Your task to perform on an android device: turn on translation in the chrome app Image 0: 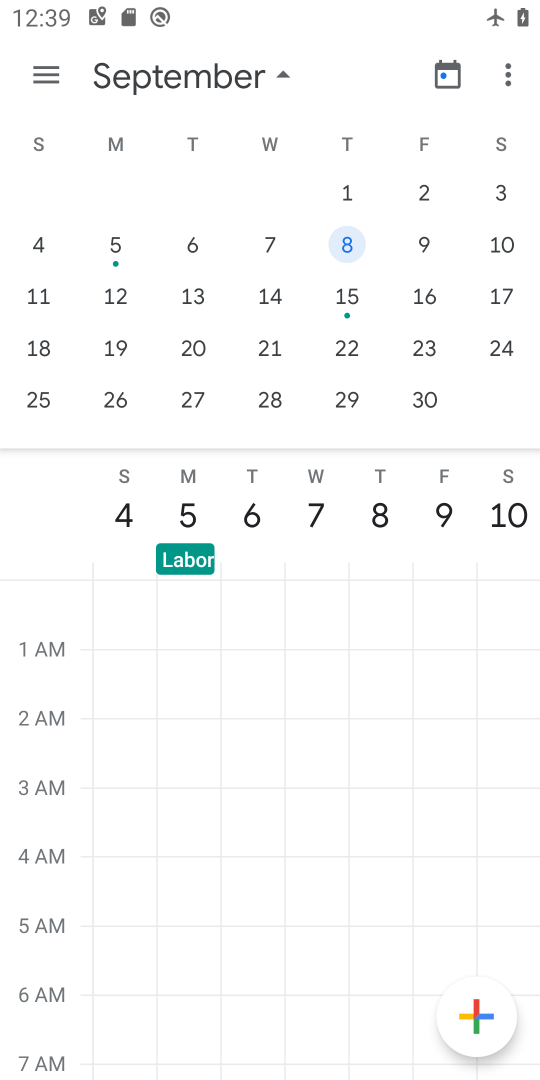
Step 0: press home button
Your task to perform on an android device: turn on translation in the chrome app Image 1: 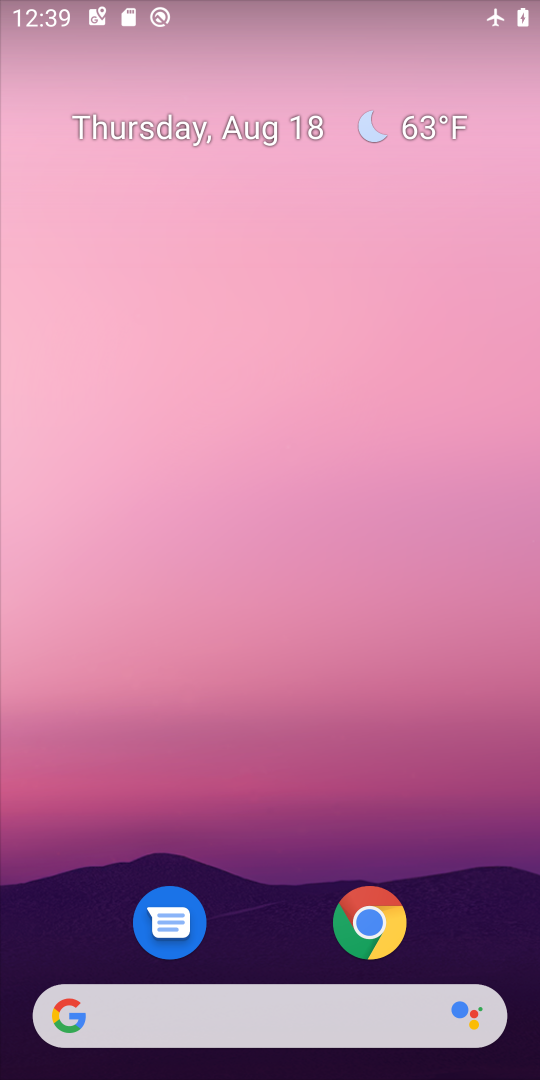
Step 1: click (375, 925)
Your task to perform on an android device: turn on translation in the chrome app Image 2: 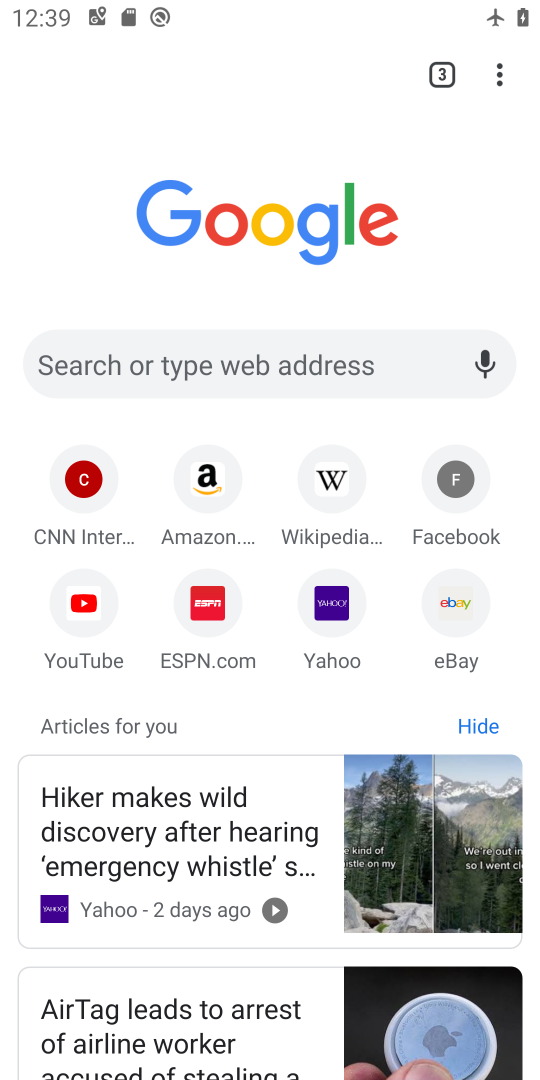
Step 2: click (506, 65)
Your task to perform on an android device: turn on translation in the chrome app Image 3: 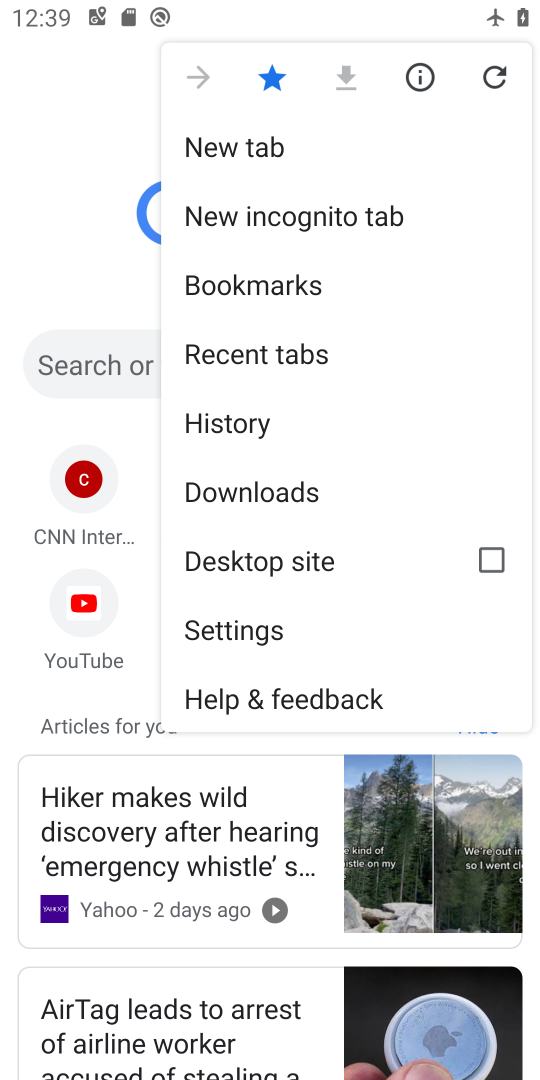
Step 3: click (226, 619)
Your task to perform on an android device: turn on translation in the chrome app Image 4: 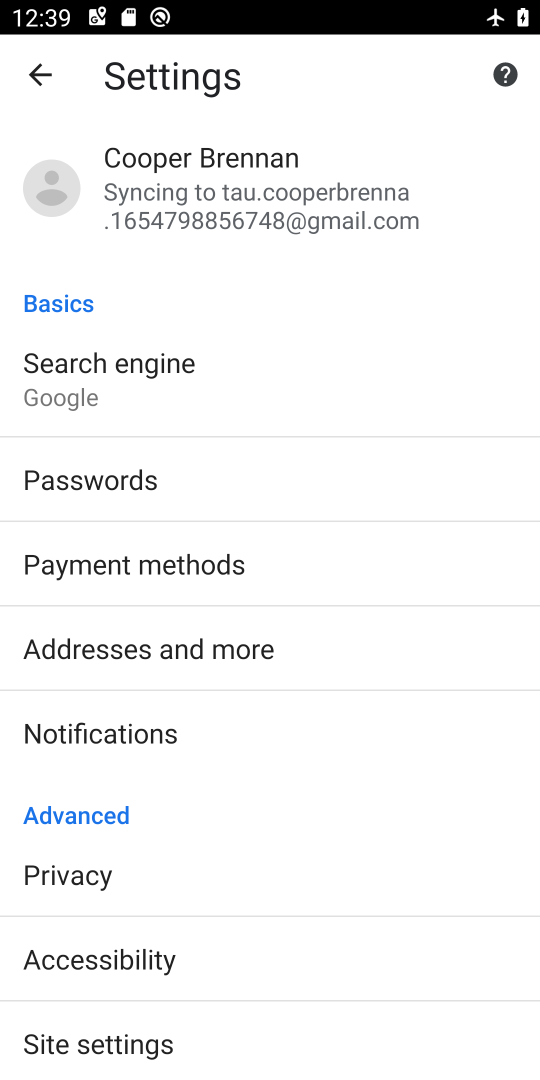
Step 4: drag from (226, 962) to (267, 730)
Your task to perform on an android device: turn on translation in the chrome app Image 5: 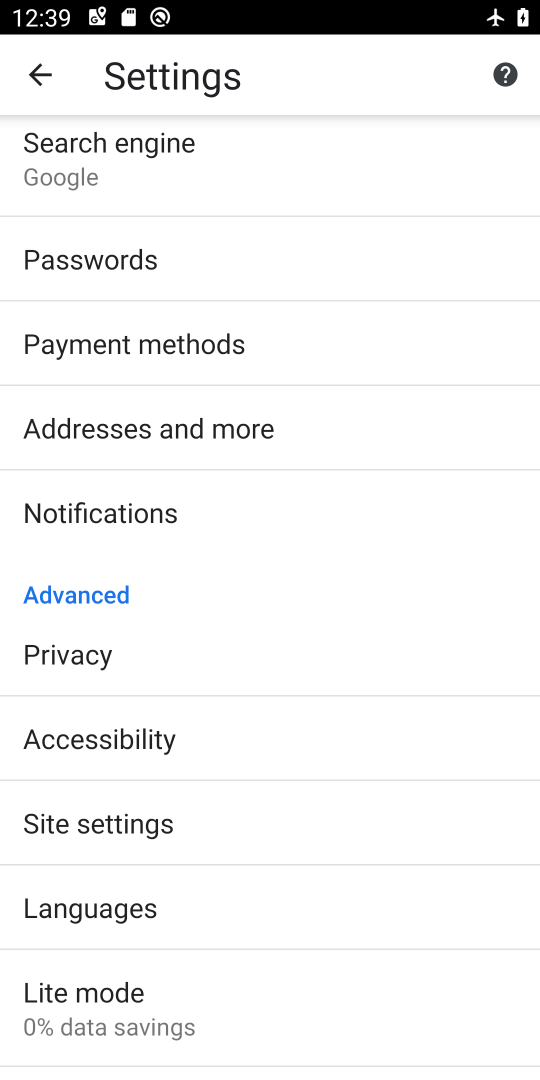
Step 5: click (110, 899)
Your task to perform on an android device: turn on translation in the chrome app Image 6: 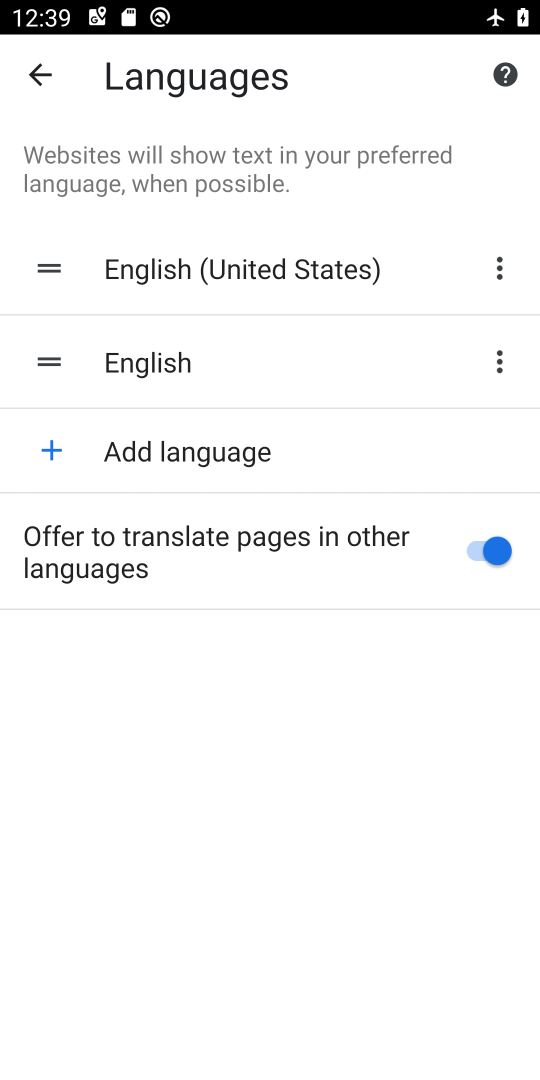
Step 6: task complete